Your task to perform on an android device: toggle location history Image 0: 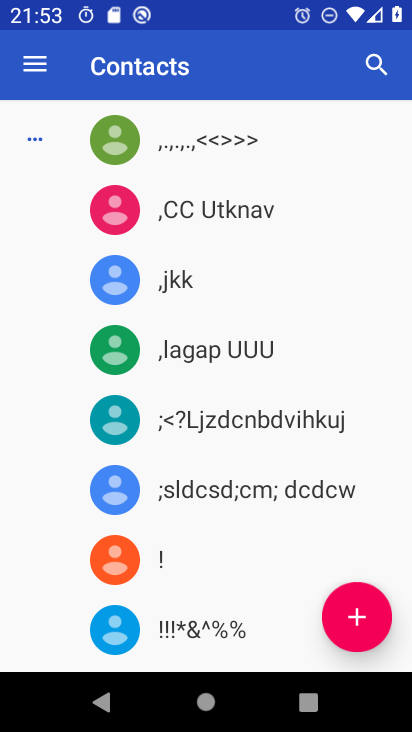
Step 0: press home button
Your task to perform on an android device: toggle location history Image 1: 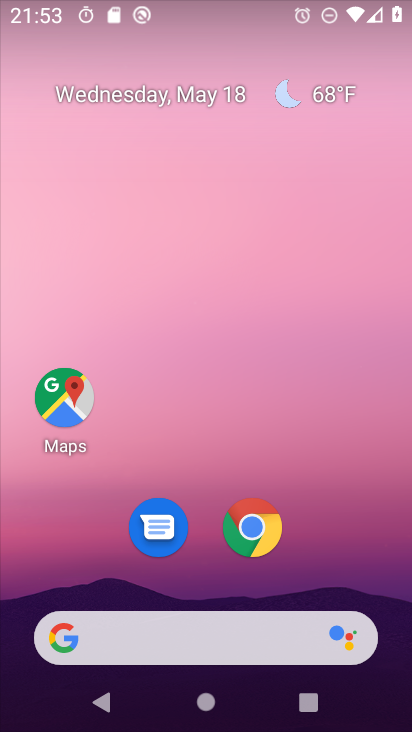
Step 1: drag from (399, 662) to (401, 180)
Your task to perform on an android device: toggle location history Image 2: 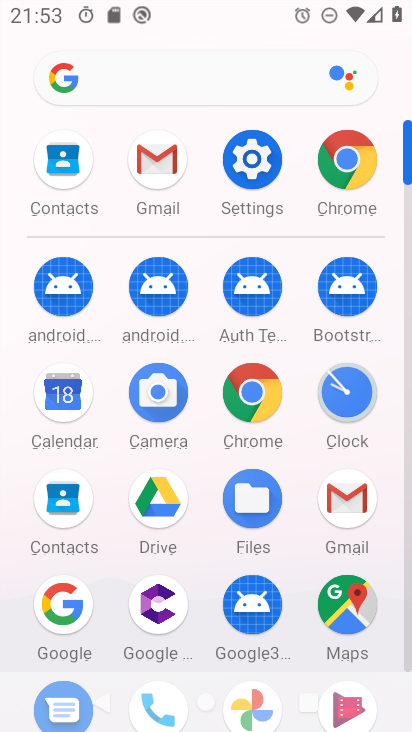
Step 2: click (244, 169)
Your task to perform on an android device: toggle location history Image 3: 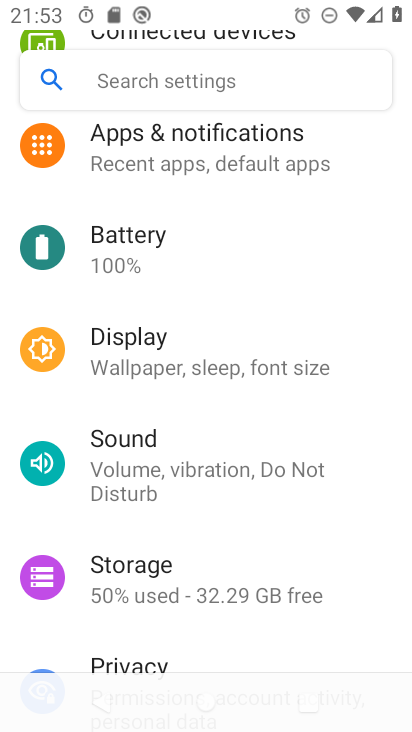
Step 3: press back button
Your task to perform on an android device: toggle location history Image 4: 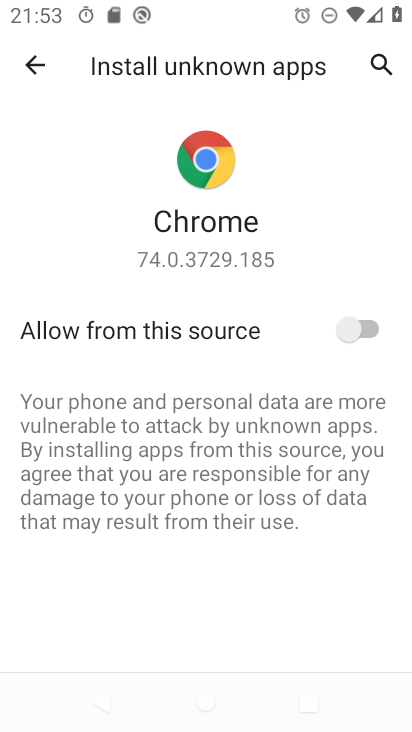
Step 4: press back button
Your task to perform on an android device: toggle location history Image 5: 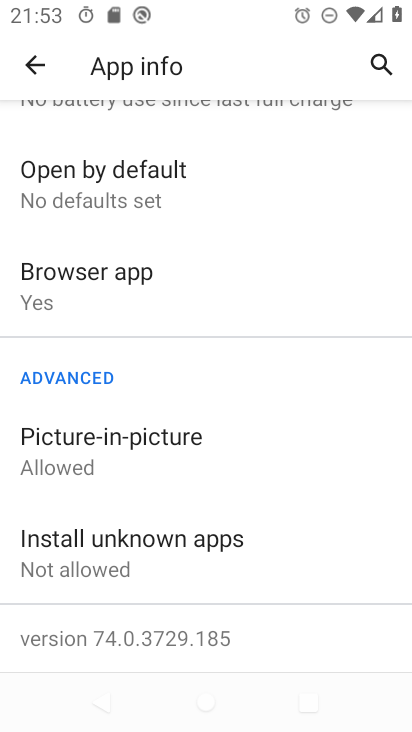
Step 5: press back button
Your task to perform on an android device: toggle location history Image 6: 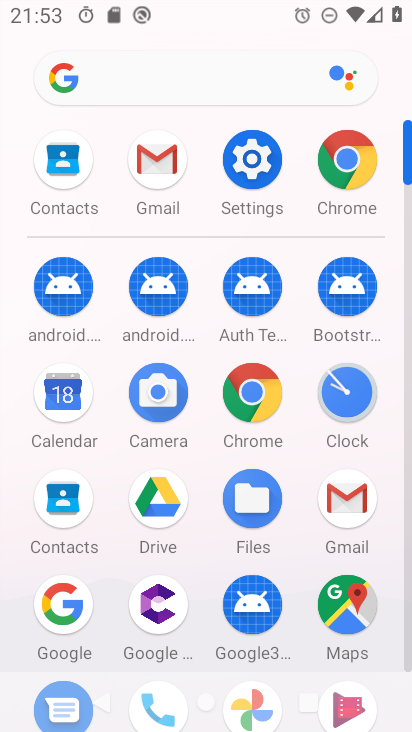
Step 6: click (358, 174)
Your task to perform on an android device: toggle location history Image 7: 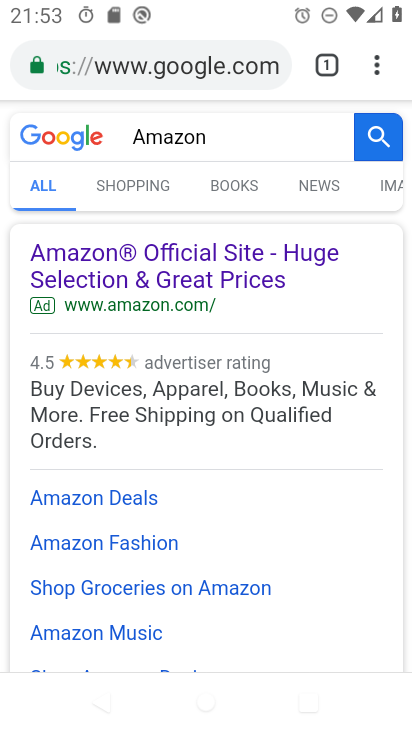
Step 7: click (377, 57)
Your task to perform on an android device: toggle location history Image 8: 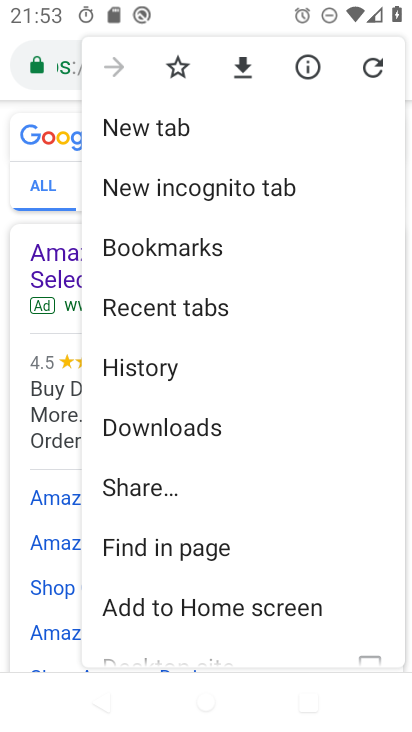
Step 8: click (165, 365)
Your task to perform on an android device: toggle location history Image 9: 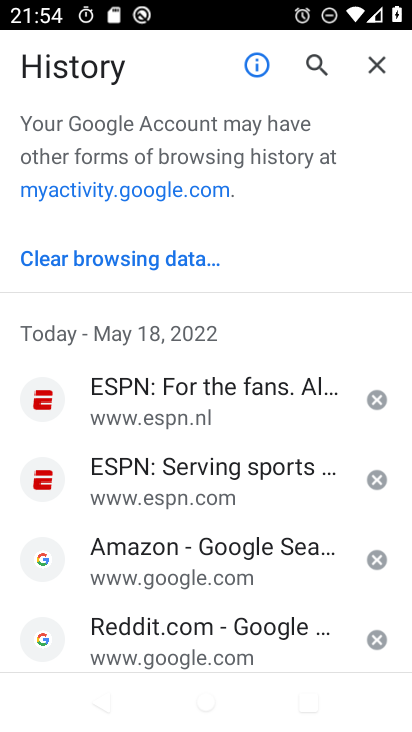
Step 9: click (101, 266)
Your task to perform on an android device: toggle location history Image 10: 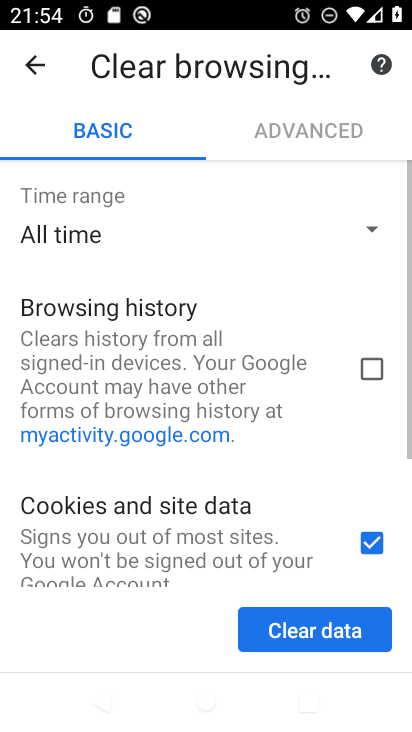
Step 10: click (308, 641)
Your task to perform on an android device: toggle location history Image 11: 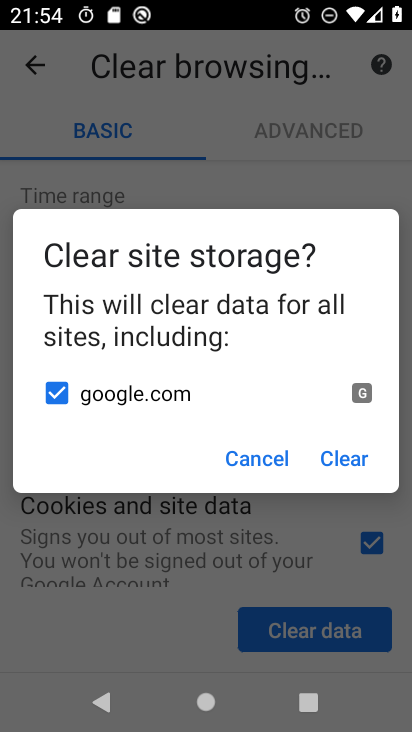
Step 11: click (356, 455)
Your task to perform on an android device: toggle location history Image 12: 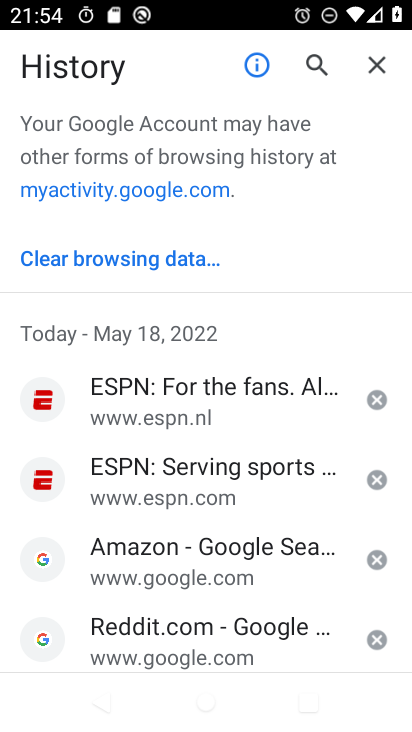
Step 12: click (181, 261)
Your task to perform on an android device: toggle location history Image 13: 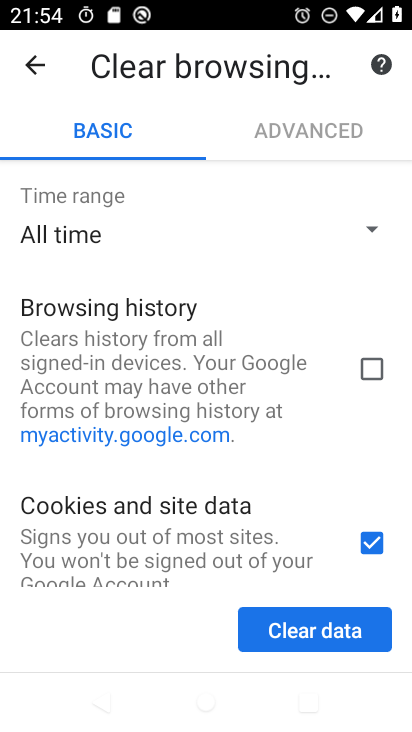
Step 13: click (267, 616)
Your task to perform on an android device: toggle location history Image 14: 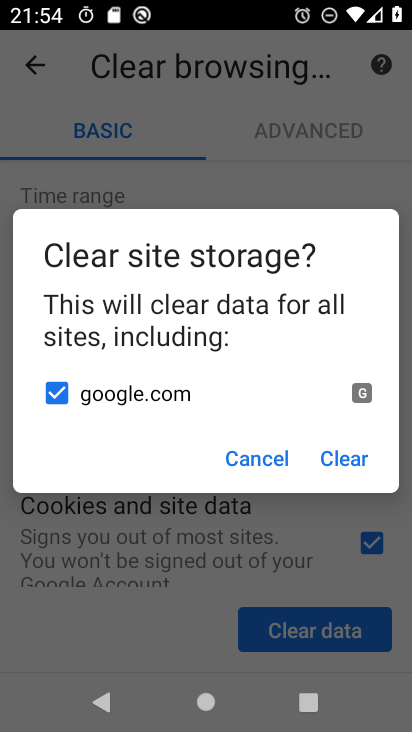
Step 14: click (335, 458)
Your task to perform on an android device: toggle location history Image 15: 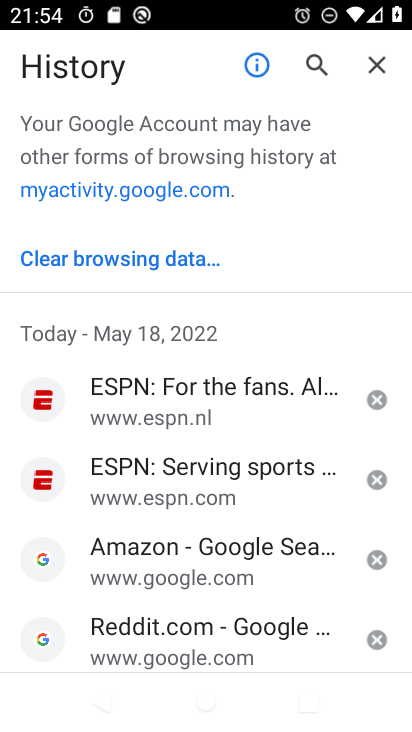
Step 15: click (145, 251)
Your task to perform on an android device: toggle location history Image 16: 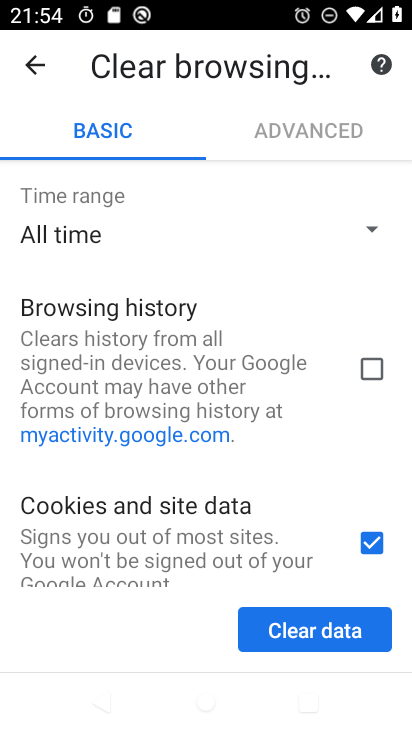
Step 16: click (377, 366)
Your task to perform on an android device: toggle location history Image 17: 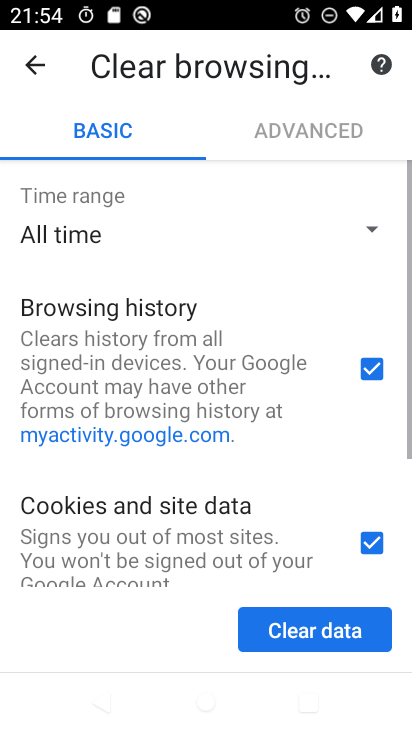
Step 17: drag from (286, 473) to (281, 271)
Your task to perform on an android device: toggle location history Image 18: 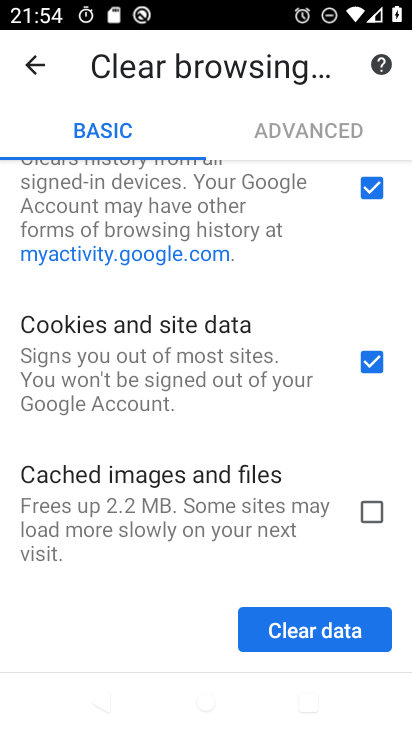
Step 18: click (382, 503)
Your task to perform on an android device: toggle location history Image 19: 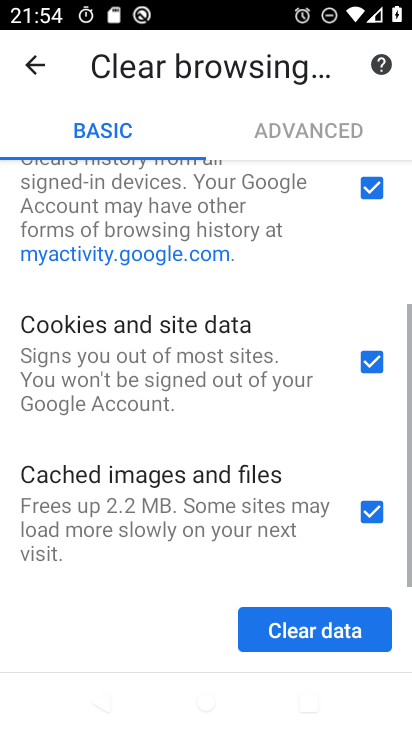
Step 19: drag from (261, 524) to (256, 318)
Your task to perform on an android device: toggle location history Image 20: 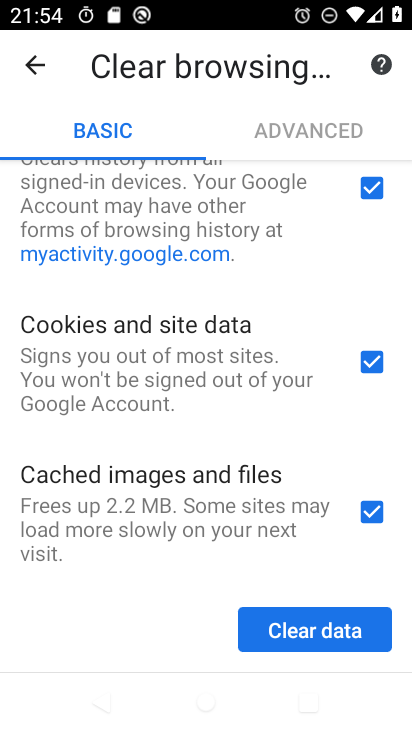
Step 20: click (349, 636)
Your task to perform on an android device: toggle location history Image 21: 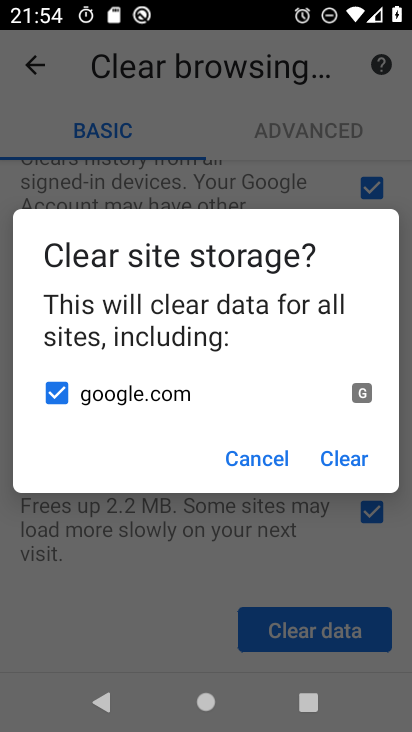
Step 21: click (337, 467)
Your task to perform on an android device: toggle location history Image 22: 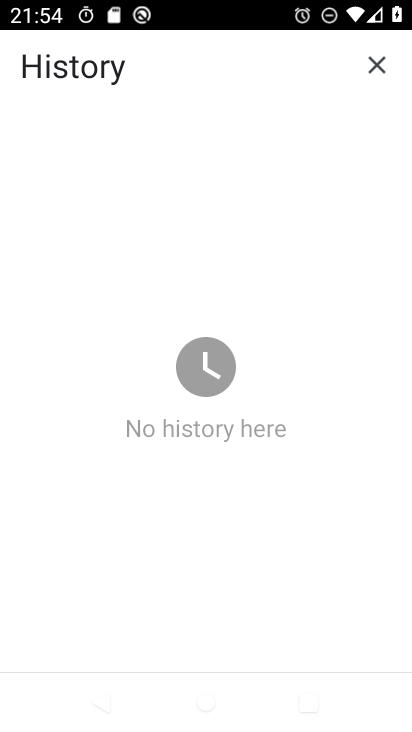
Step 22: task complete